Your task to perform on an android device: delete location history Image 0: 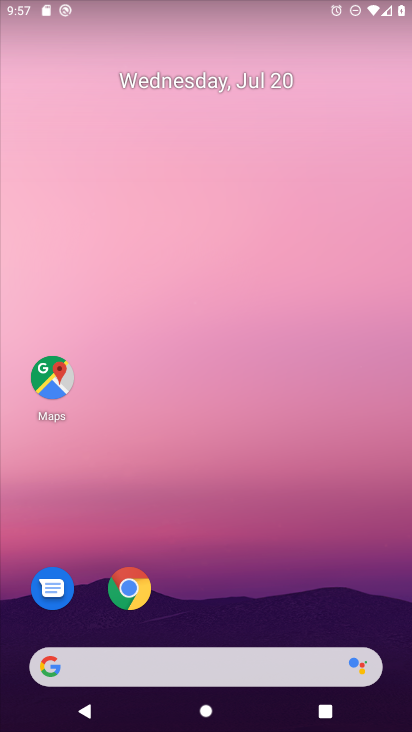
Step 0: click (65, 366)
Your task to perform on an android device: delete location history Image 1: 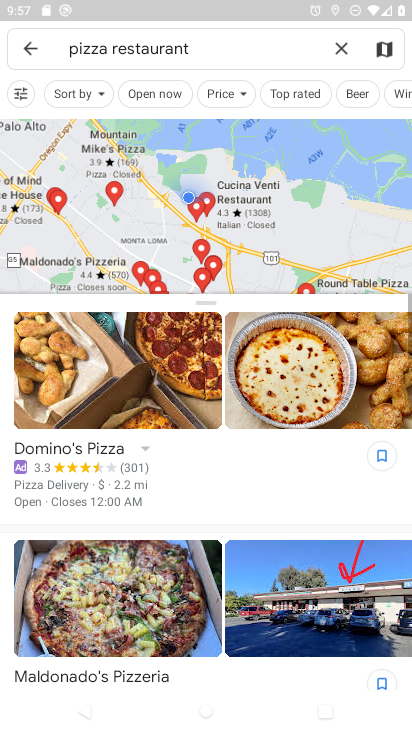
Step 1: click (33, 57)
Your task to perform on an android device: delete location history Image 2: 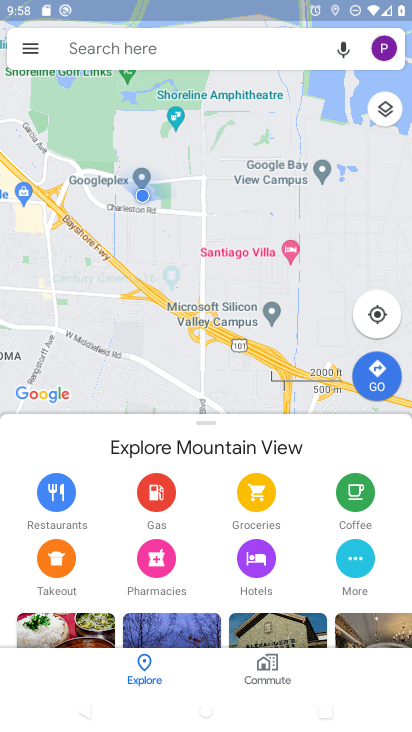
Step 2: click (33, 57)
Your task to perform on an android device: delete location history Image 3: 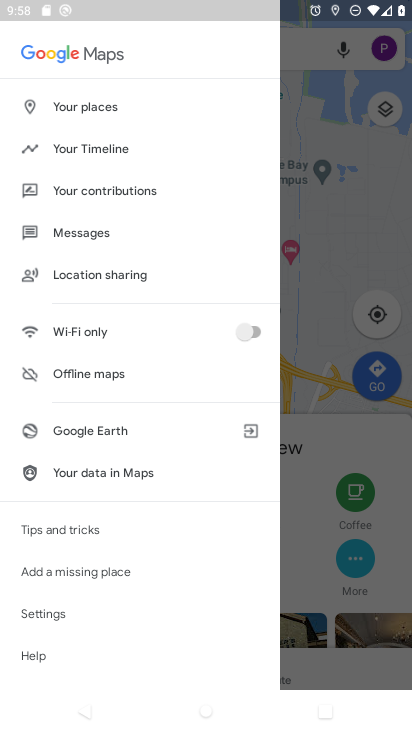
Step 3: click (63, 599)
Your task to perform on an android device: delete location history Image 4: 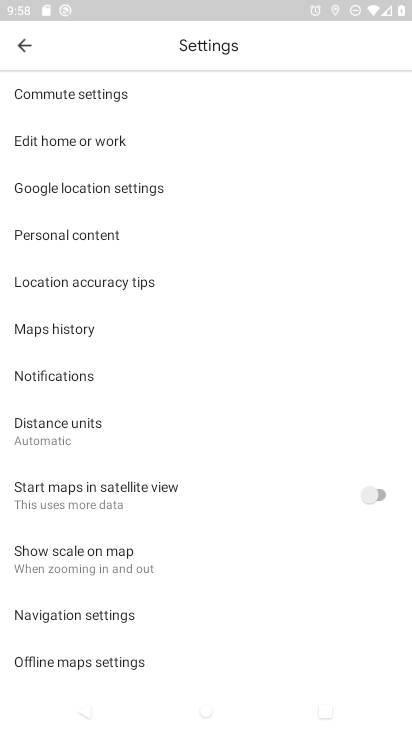
Step 4: click (32, 47)
Your task to perform on an android device: delete location history Image 5: 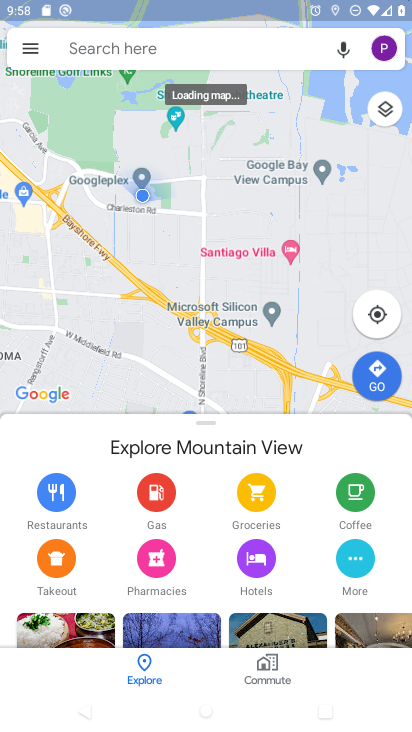
Step 5: click (32, 47)
Your task to perform on an android device: delete location history Image 6: 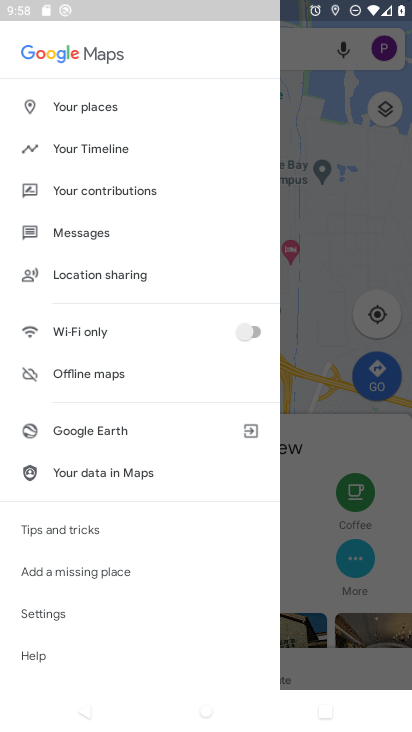
Step 6: click (133, 138)
Your task to perform on an android device: delete location history Image 7: 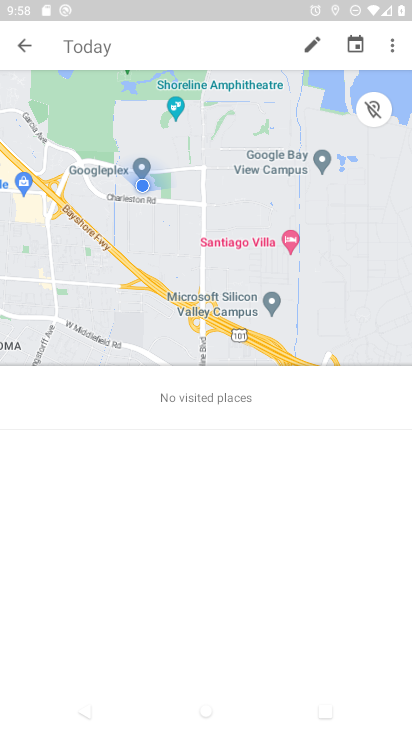
Step 7: click (399, 52)
Your task to perform on an android device: delete location history Image 8: 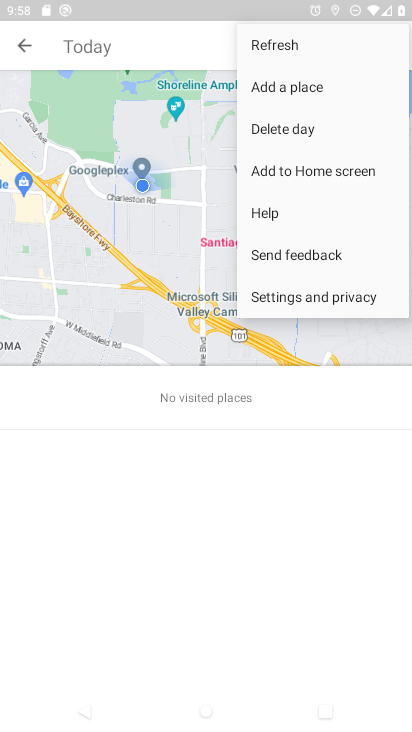
Step 8: click (306, 302)
Your task to perform on an android device: delete location history Image 9: 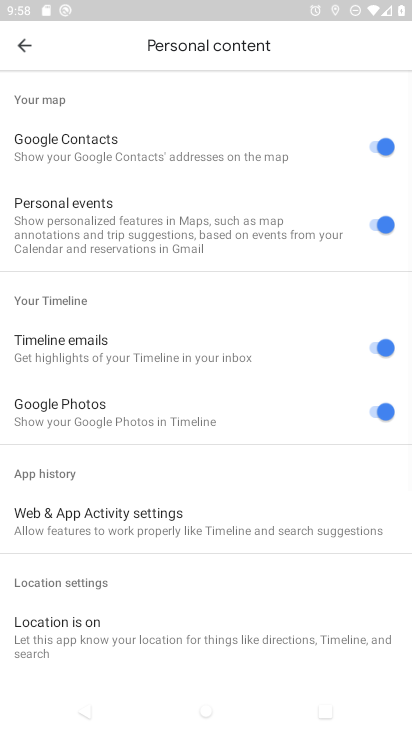
Step 9: drag from (117, 623) to (147, 180)
Your task to perform on an android device: delete location history Image 10: 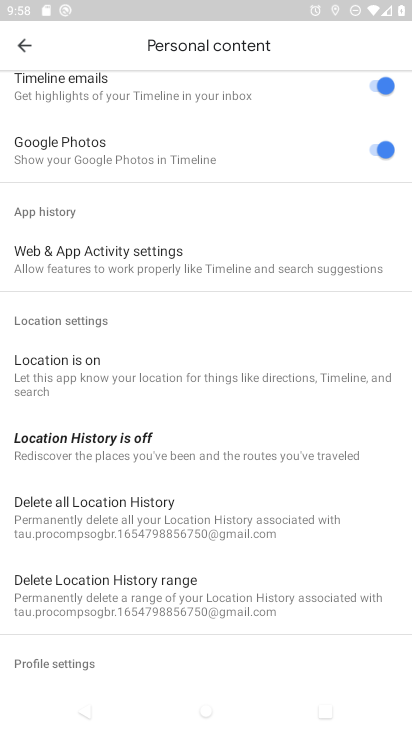
Step 10: click (108, 532)
Your task to perform on an android device: delete location history Image 11: 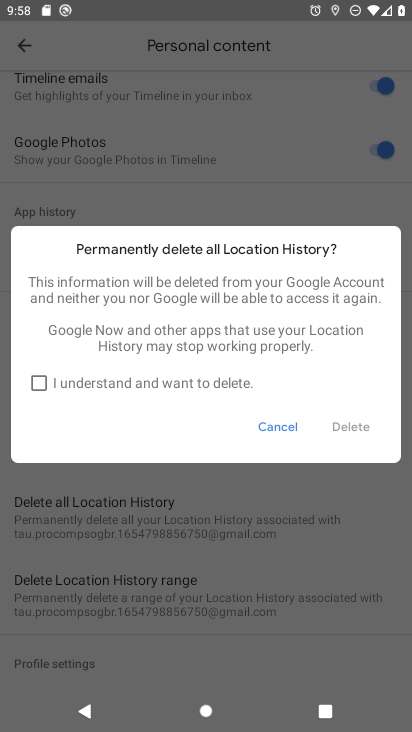
Step 11: click (39, 384)
Your task to perform on an android device: delete location history Image 12: 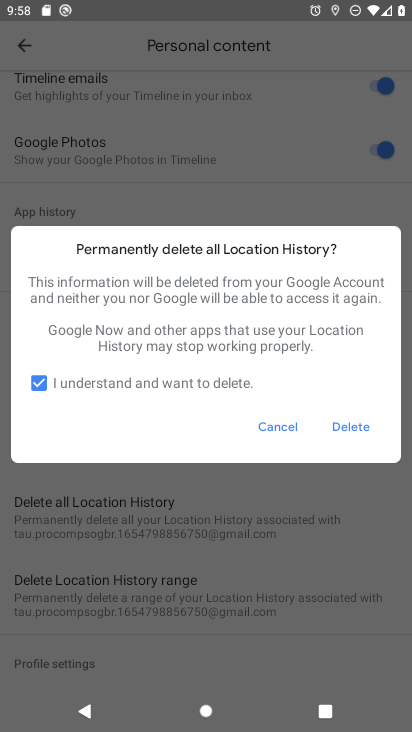
Step 12: click (360, 421)
Your task to perform on an android device: delete location history Image 13: 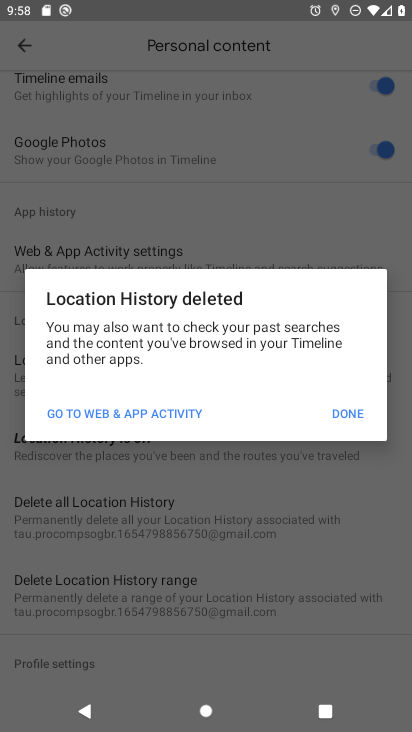
Step 13: task complete